Your task to perform on an android device: Open the map Image 0: 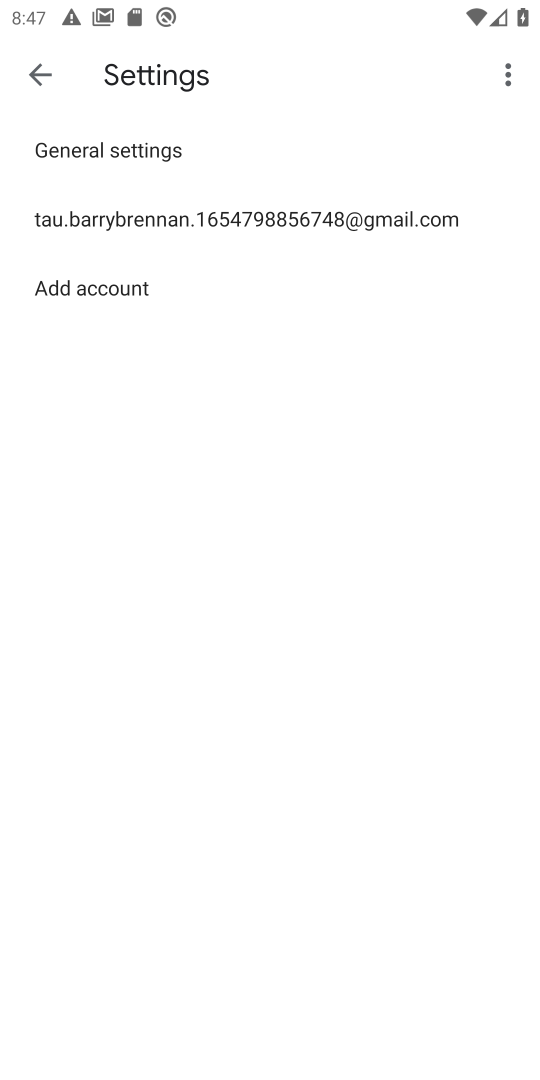
Step 0: press home button
Your task to perform on an android device: Open the map Image 1: 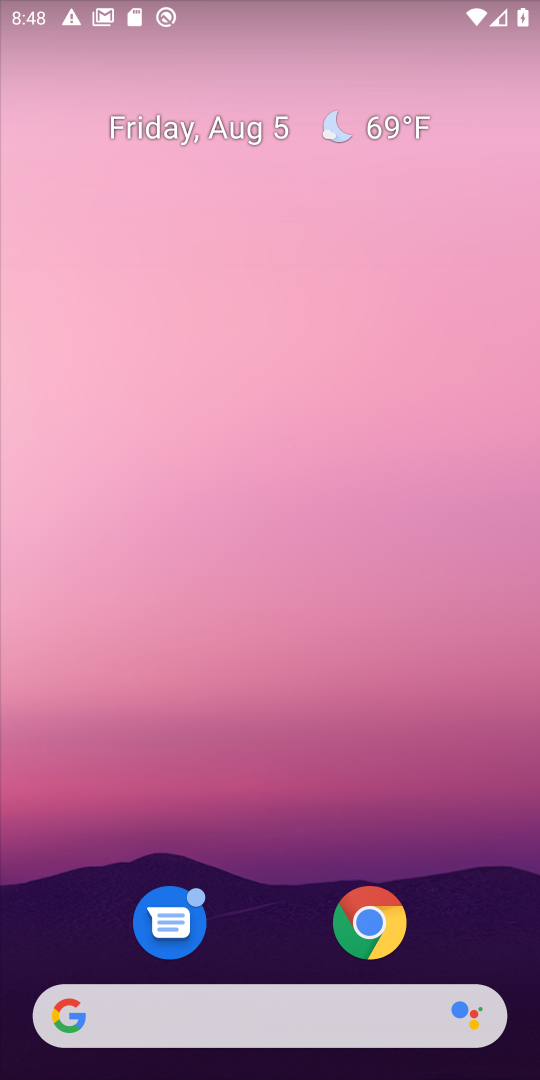
Step 1: drag from (293, 968) to (309, 392)
Your task to perform on an android device: Open the map Image 2: 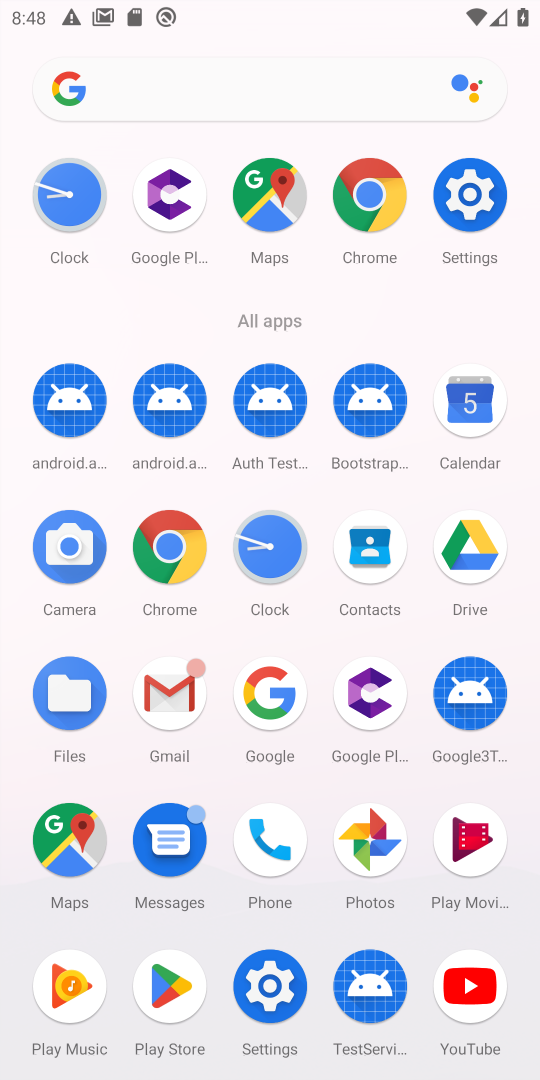
Step 2: click (262, 208)
Your task to perform on an android device: Open the map Image 3: 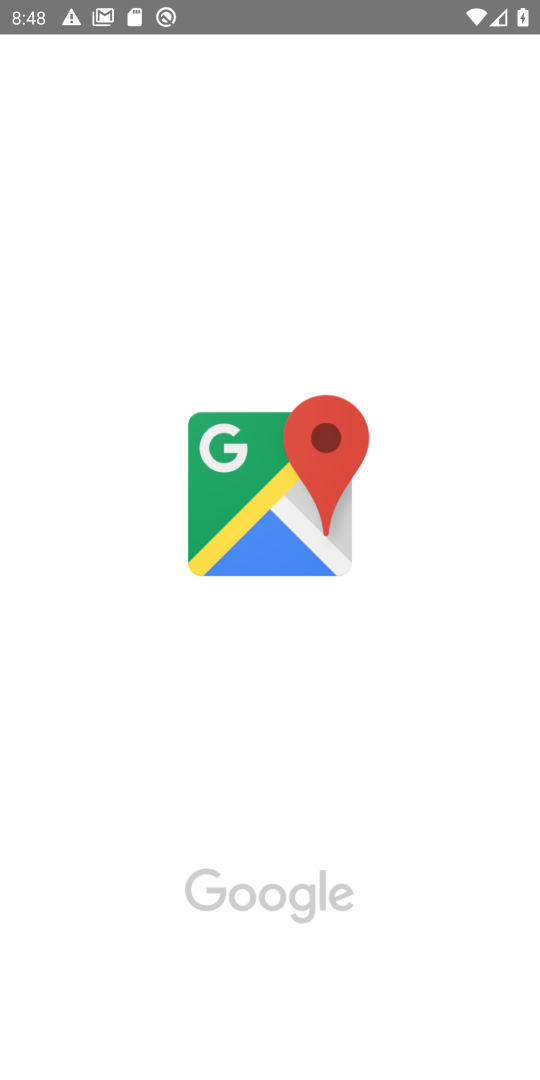
Step 3: task complete